Your task to perform on an android device: Open the calendar and show me this week's events? Image 0: 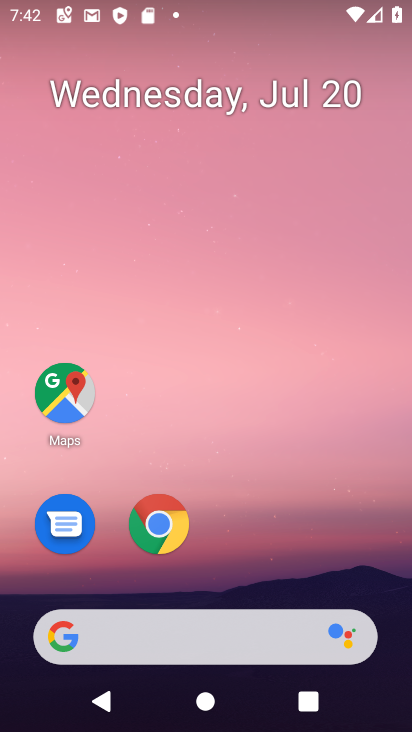
Step 0: drag from (202, 624) to (321, 166)
Your task to perform on an android device: Open the calendar and show me this week's events? Image 1: 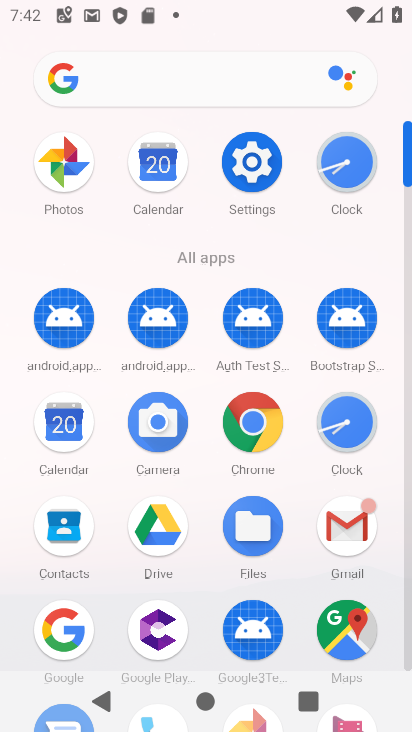
Step 1: click (53, 426)
Your task to perform on an android device: Open the calendar and show me this week's events? Image 2: 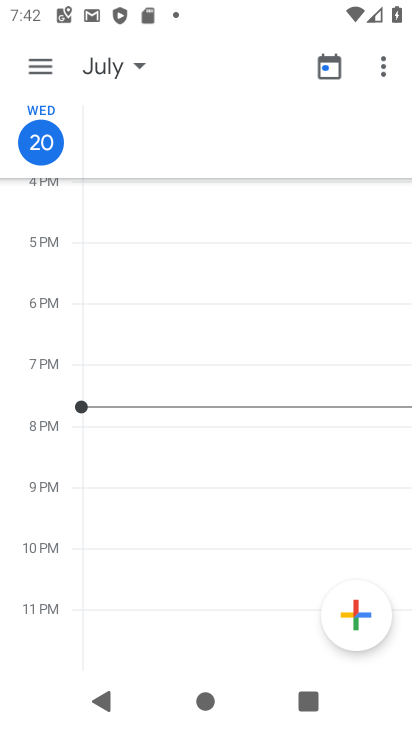
Step 2: click (102, 64)
Your task to perform on an android device: Open the calendar and show me this week's events? Image 3: 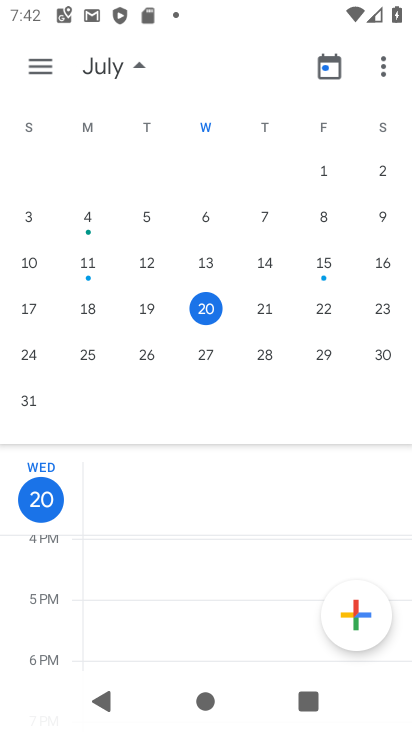
Step 3: click (208, 306)
Your task to perform on an android device: Open the calendar and show me this week's events? Image 4: 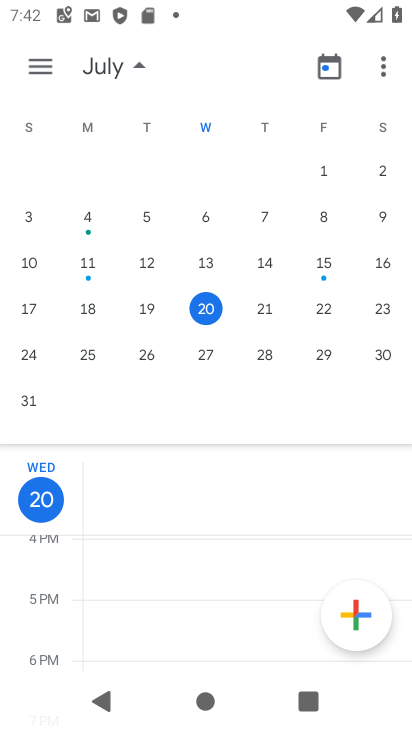
Step 4: click (47, 60)
Your task to perform on an android device: Open the calendar and show me this week's events? Image 5: 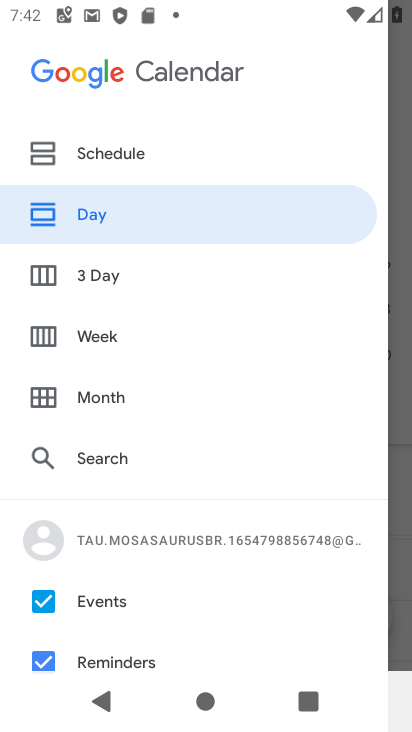
Step 5: click (95, 334)
Your task to perform on an android device: Open the calendar and show me this week's events? Image 6: 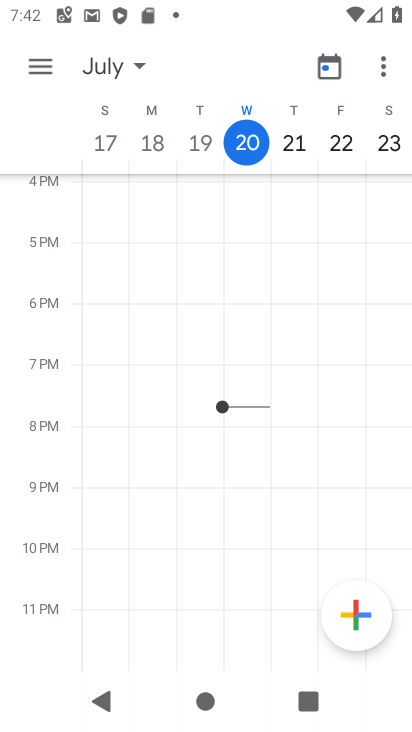
Step 6: click (40, 58)
Your task to perform on an android device: Open the calendar and show me this week's events? Image 7: 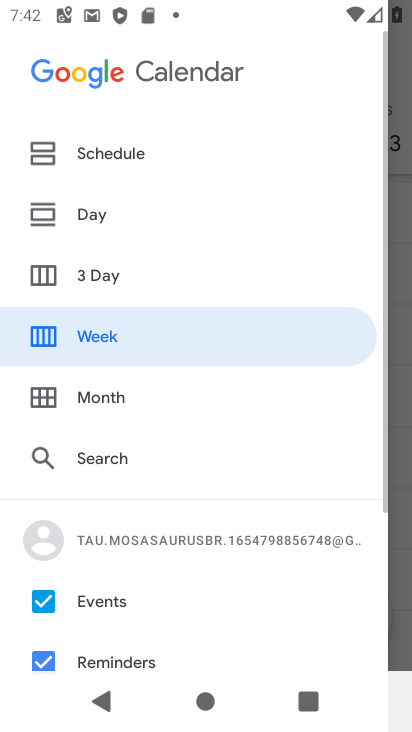
Step 7: click (89, 154)
Your task to perform on an android device: Open the calendar and show me this week's events? Image 8: 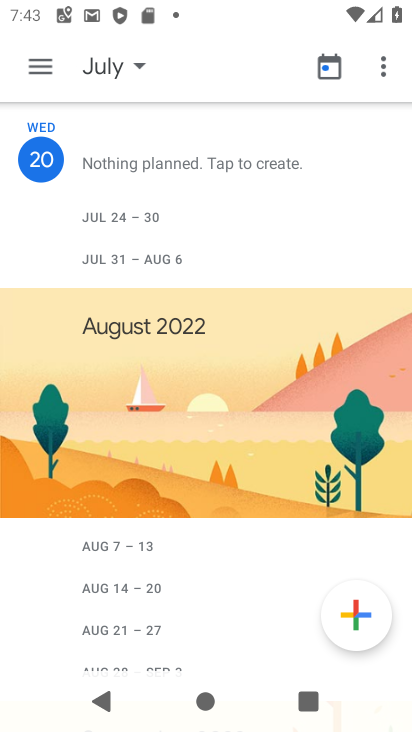
Step 8: task complete